Your task to perform on an android device: Go to Android settings Image 0: 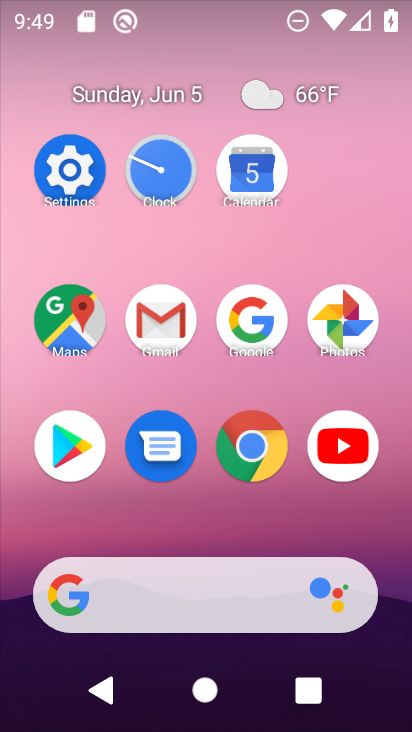
Step 0: click (70, 188)
Your task to perform on an android device: Go to Android settings Image 1: 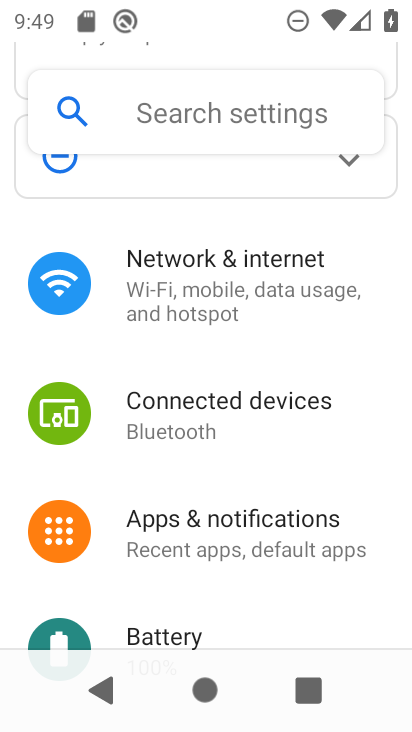
Step 1: task complete